Your task to perform on an android device: Search for vegetarian restaurants on Maps Image 0: 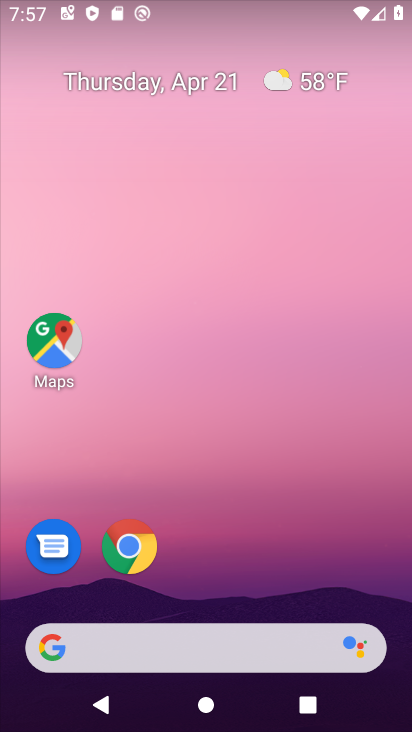
Step 0: drag from (232, 473) to (232, 63)
Your task to perform on an android device: Search for vegetarian restaurants on Maps Image 1: 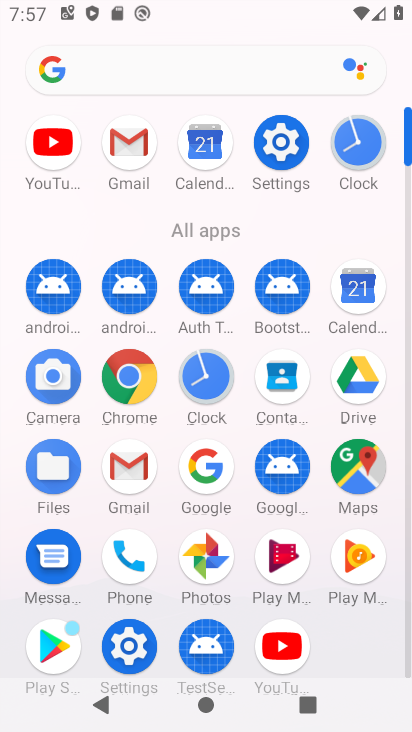
Step 1: click (362, 459)
Your task to perform on an android device: Search for vegetarian restaurants on Maps Image 2: 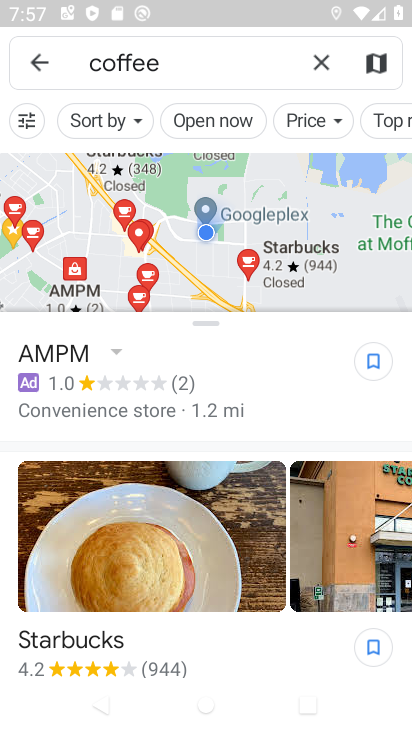
Step 2: click (313, 60)
Your task to perform on an android device: Search for vegetarian restaurants on Maps Image 3: 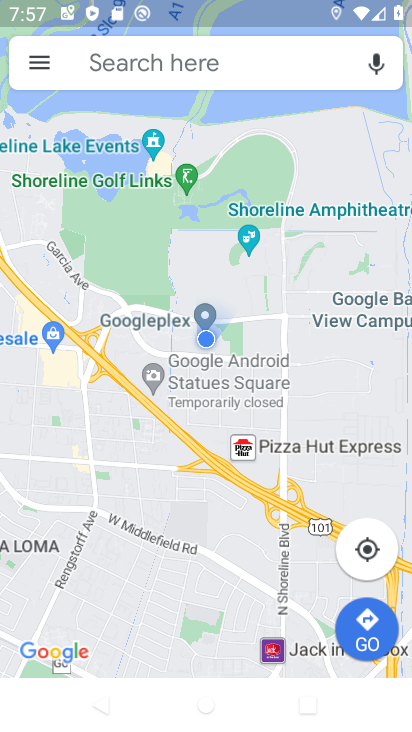
Step 3: click (162, 70)
Your task to perform on an android device: Search for vegetarian restaurants on Maps Image 4: 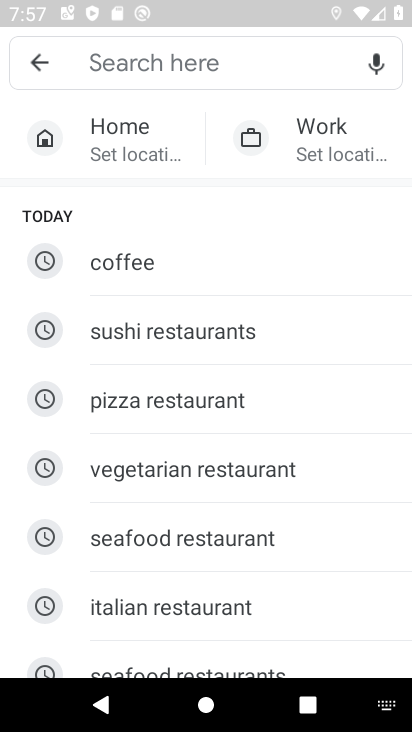
Step 4: click (181, 495)
Your task to perform on an android device: Search for vegetarian restaurants on Maps Image 5: 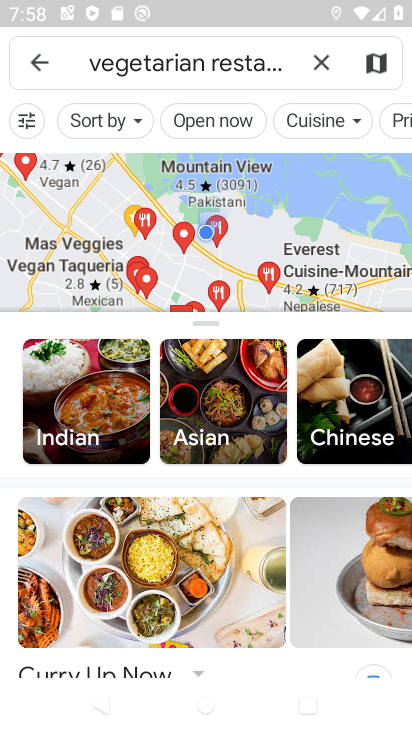
Step 5: task complete